Your task to perform on an android device: Check the news Image 0: 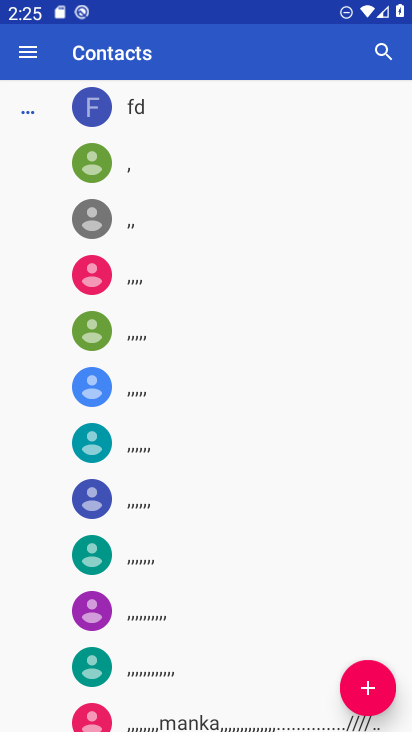
Step 0: press home button
Your task to perform on an android device: Check the news Image 1: 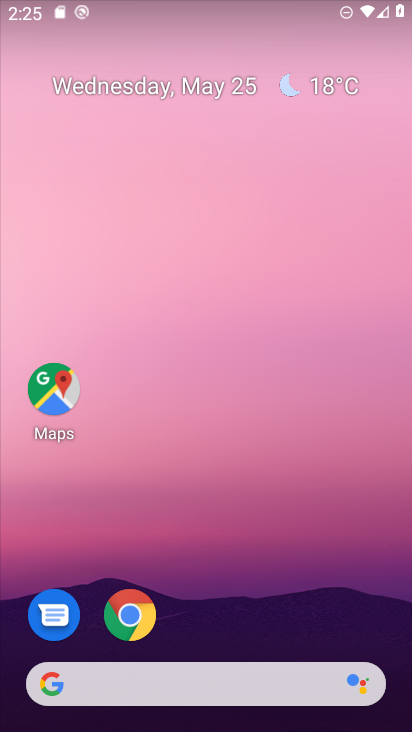
Step 1: click (228, 688)
Your task to perform on an android device: Check the news Image 2: 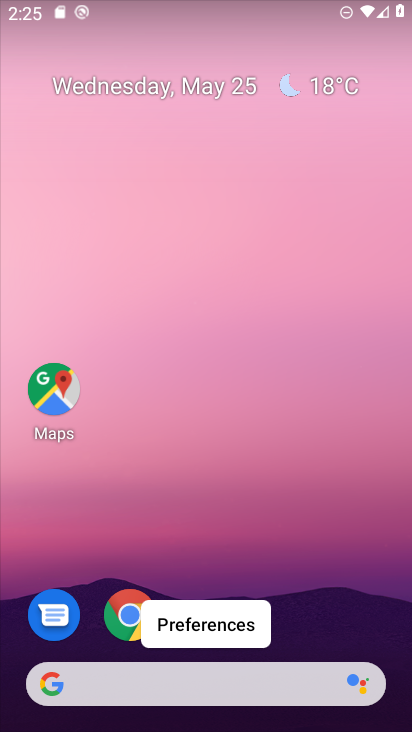
Step 2: click (207, 693)
Your task to perform on an android device: Check the news Image 3: 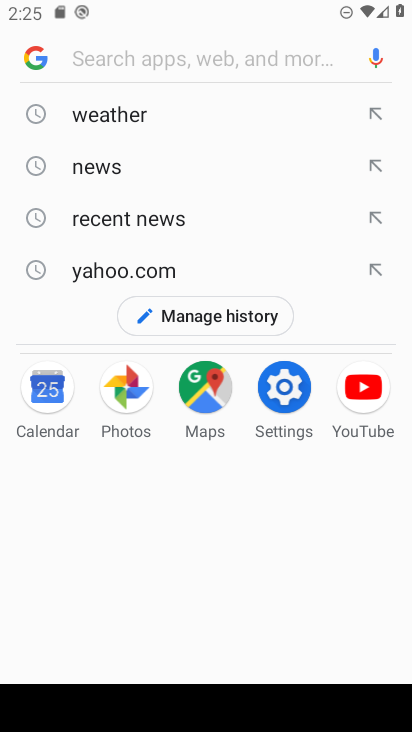
Step 3: click (88, 164)
Your task to perform on an android device: Check the news Image 4: 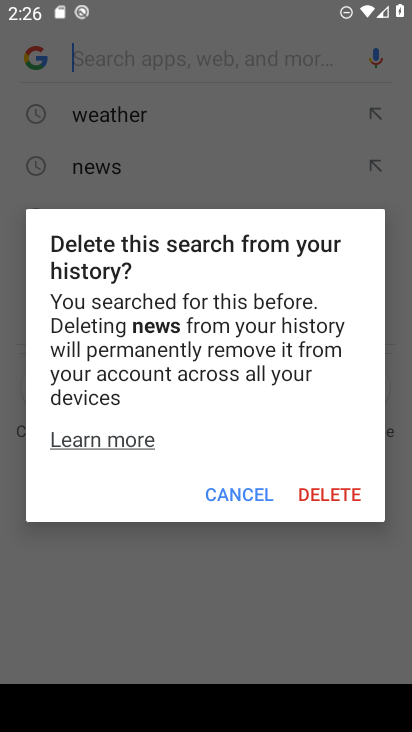
Step 4: click (245, 495)
Your task to perform on an android device: Check the news Image 5: 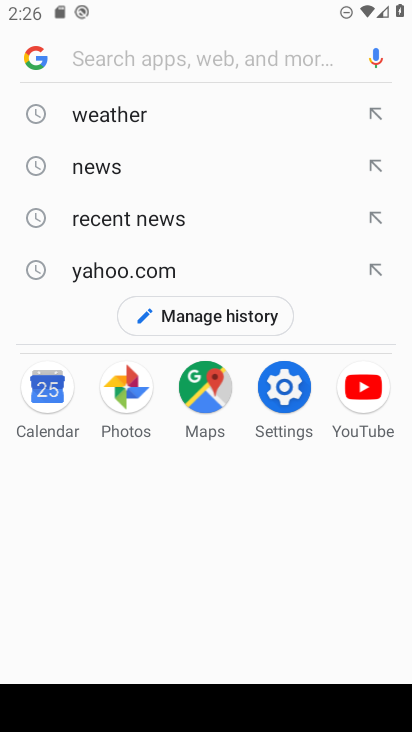
Step 5: click (118, 168)
Your task to perform on an android device: Check the news Image 6: 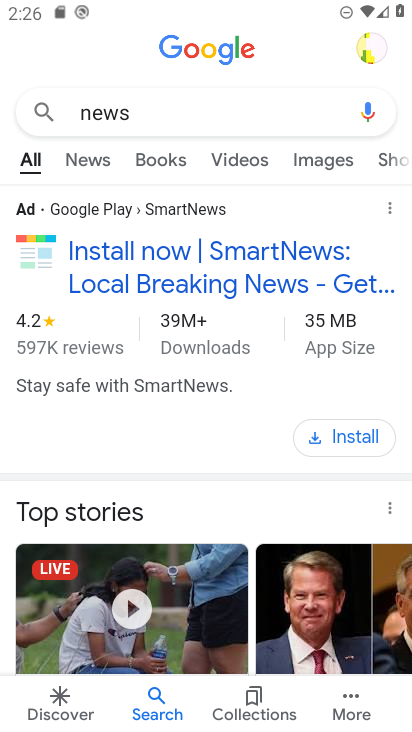
Step 6: click (85, 149)
Your task to perform on an android device: Check the news Image 7: 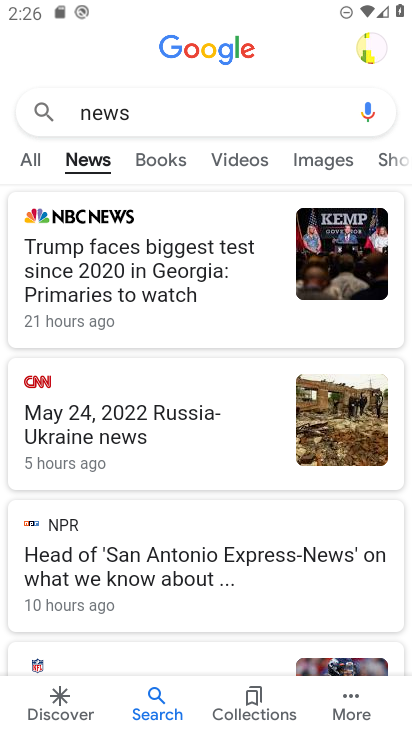
Step 7: task complete